Your task to perform on an android device: Find coffee shops on Maps Image 0: 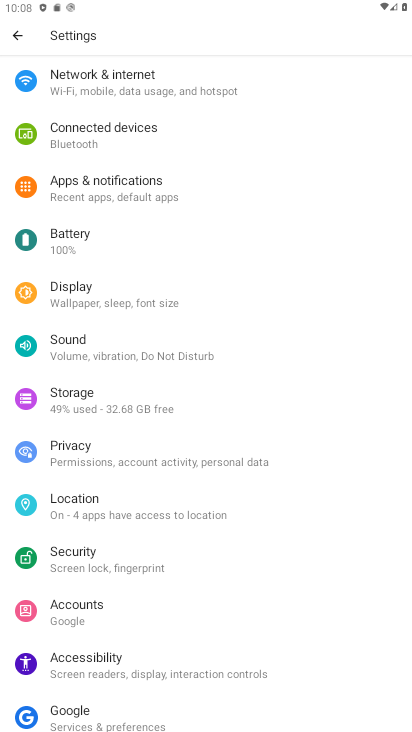
Step 0: press home button
Your task to perform on an android device: Find coffee shops on Maps Image 1: 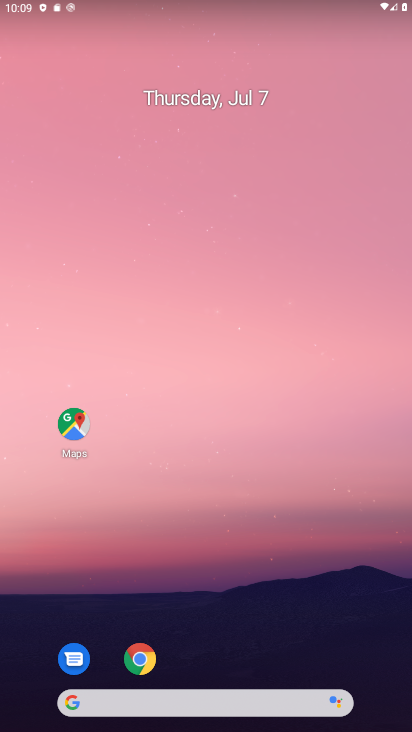
Step 1: click (73, 431)
Your task to perform on an android device: Find coffee shops on Maps Image 2: 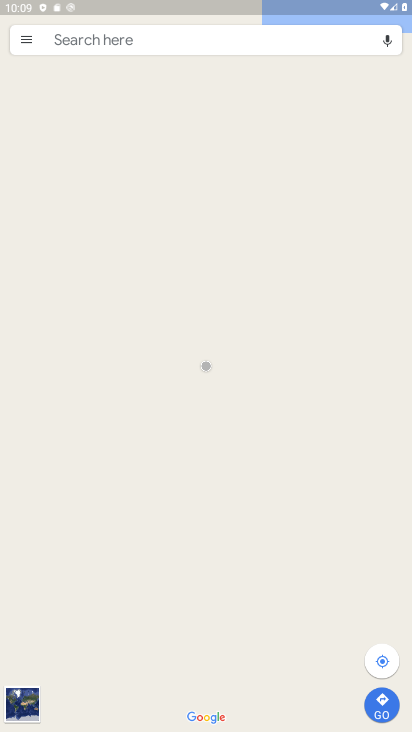
Step 2: click (175, 43)
Your task to perform on an android device: Find coffee shops on Maps Image 3: 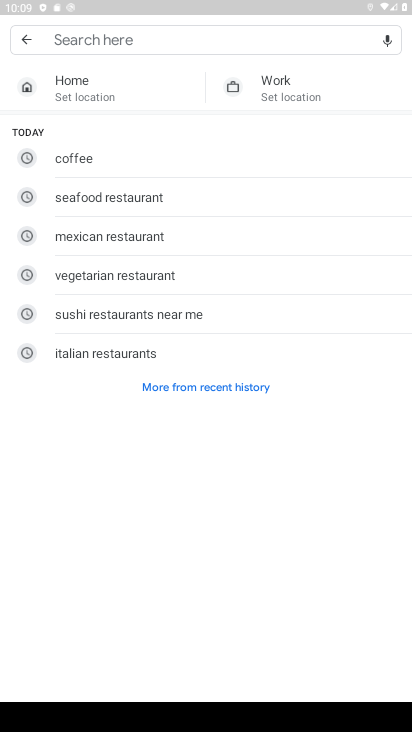
Step 3: type "coffee shops"
Your task to perform on an android device: Find coffee shops on Maps Image 4: 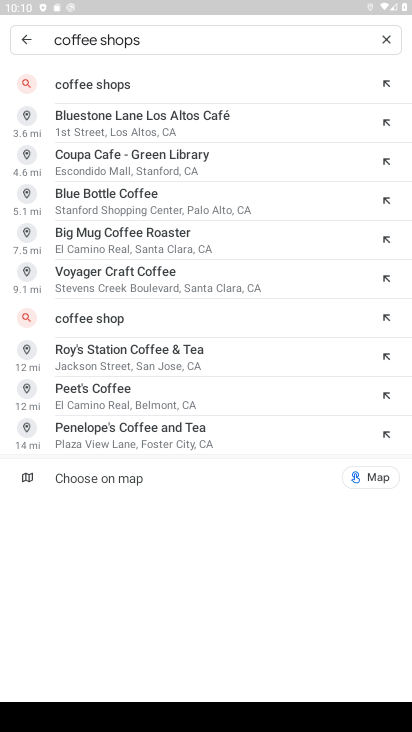
Step 4: click (137, 81)
Your task to perform on an android device: Find coffee shops on Maps Image 5: 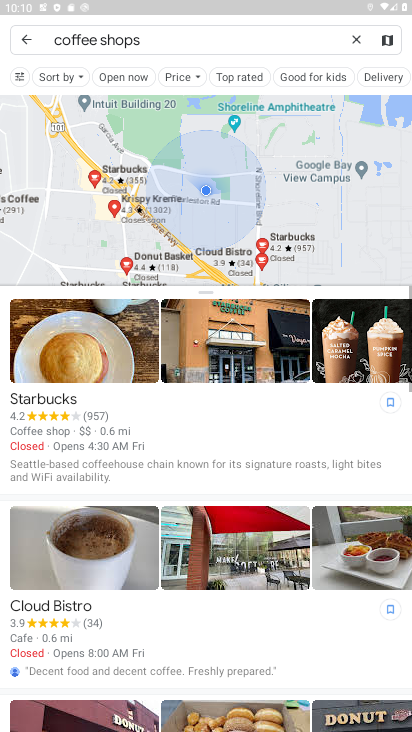
Step 5: task complete